Your task to perform on an android device: Open Google Chrome and click the shortcut for Amazon.com Image 0: 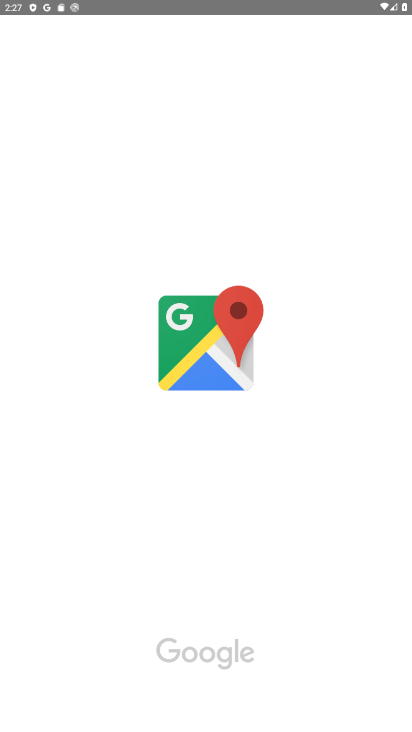
Step 0: press home button
Your task to perform on an android device: Open Google Chrome and click the shortcut for Amazon.com Image 1: 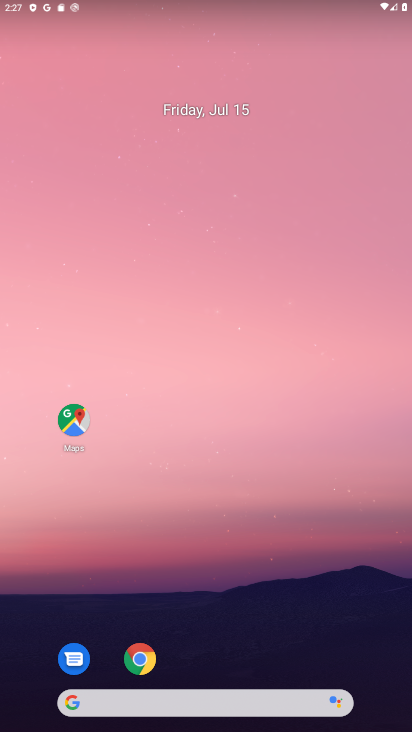
Step 1: drag from (151, 664) to (257, 164)
Your task to perform on an android device: Open Google Chrome and click the shortcut for Amazon.com Image 2: 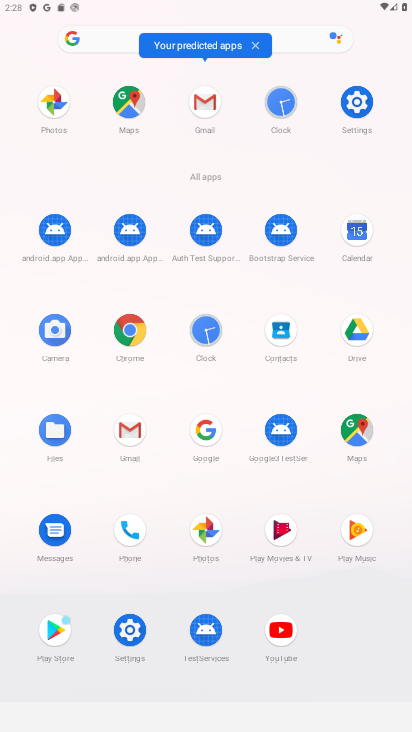
Step 2: click (130, 332)
Your task to perform on an android device: Open Google Chrome and click the shortcut for Amazon.com Image 3: 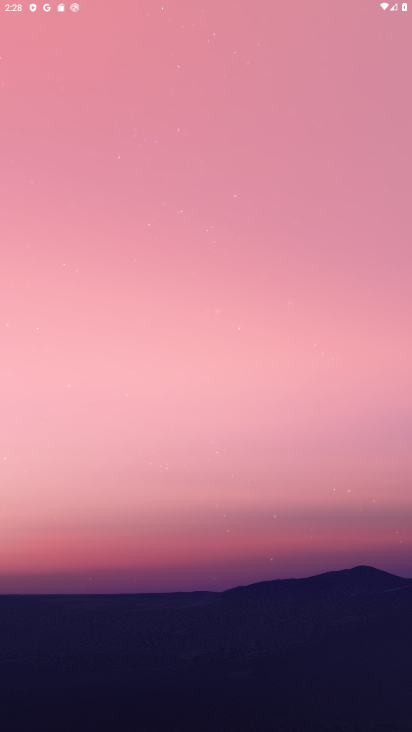
Step 3: click (130, 325)
Your task to perform on an android device: Open Google Chrome and click the shortcut for Amazon.com Image 4: 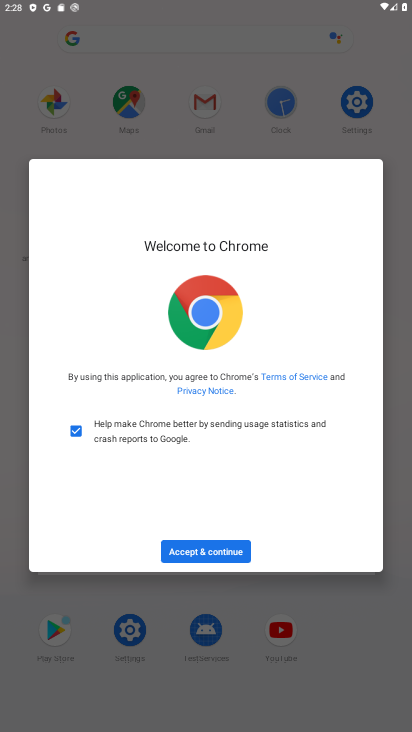
Step 4: click (203, 547)
Your task to perform on an android device: Open Google Chrome and click the shortcut for Amazon.com Image 5: 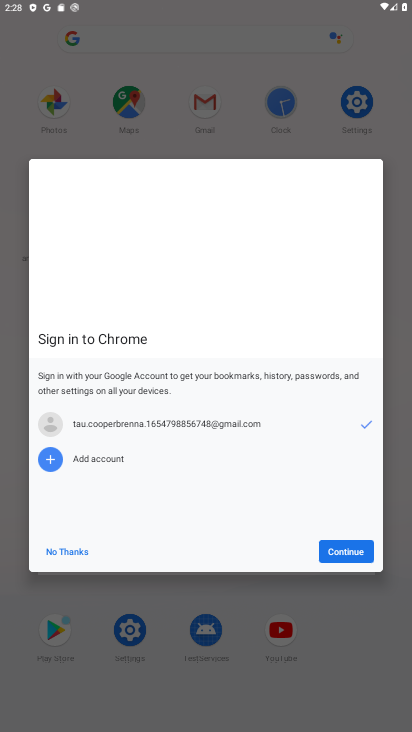
Step 5: click (339, 550)
Your task to perform on an android device: Open Google Chrome and click the shortcut for Amazon.com Image 6: 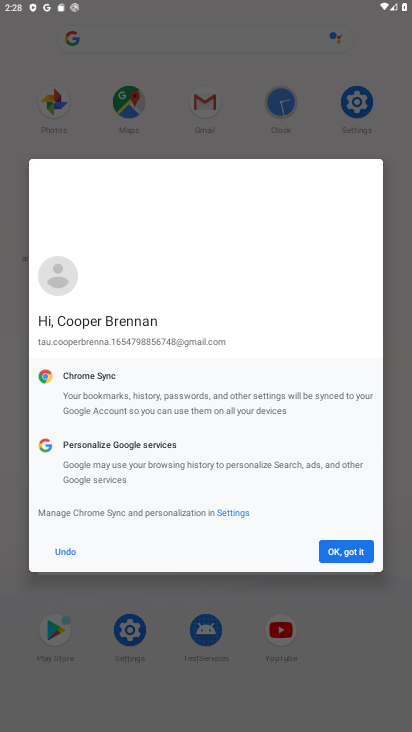
Step 6: click (339, 550)
Your task to perform on an android device: Open Google Chrome and click the shortcut for Amazon.com Image 7: 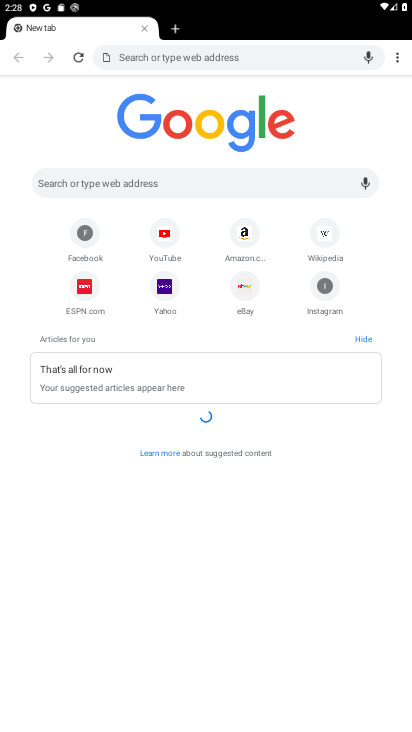
Step 7: click (251, 228)
Your task to perform on an android device: Open Google Chrome and click the shortcut for Amazon.com Image 8: 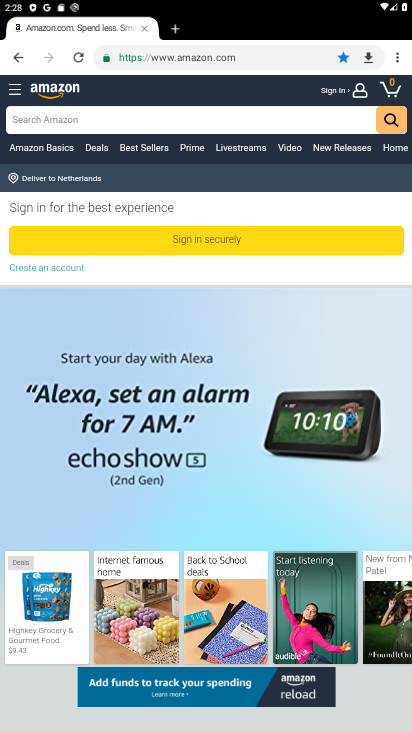
Step 8: task complete